Your task to perform on an android device: add a label to a message in the gmail app Image 0: 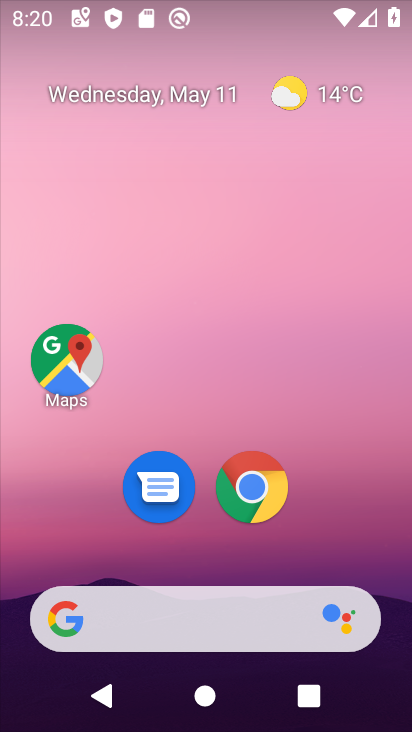
Step 0: press home button
Your task to perform on an android device: add a label to a message in the gmail app Image 1: 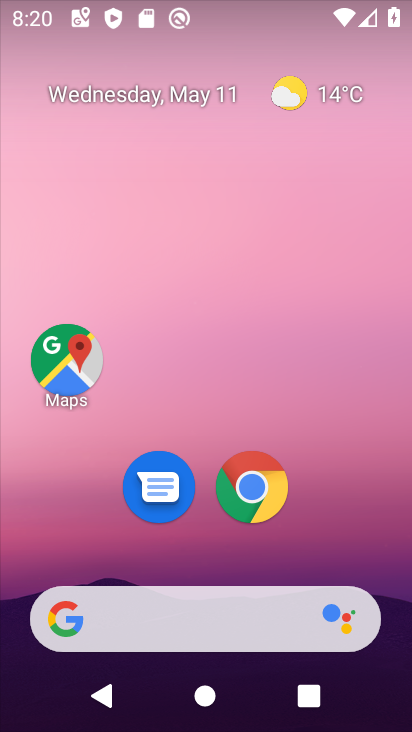
Step 1: drag from (176, 586) to (200, 218)
Your task to perform on an android device: add a label to a message in the gmail app Image 2: 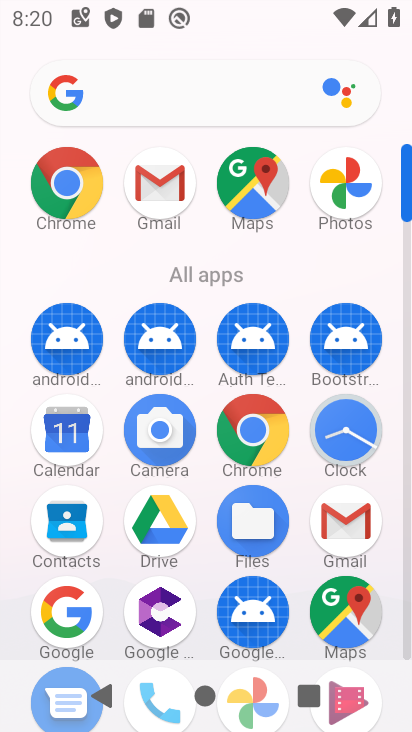
Step 2: click (346, 519)
Your task to perform on an android device: add a label to a message in the gmail app Image 3: 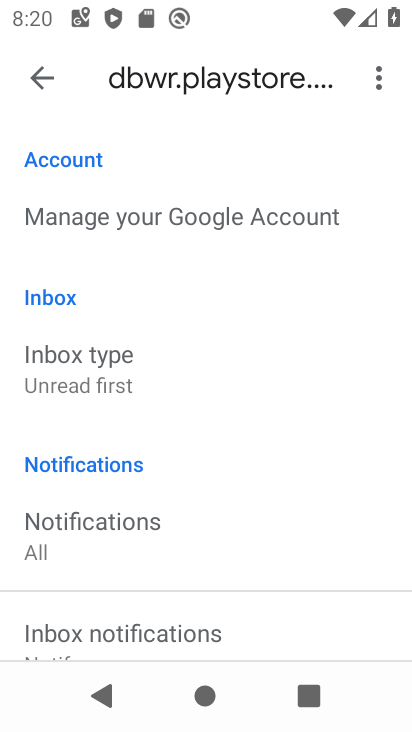
Step 3: drag from (160, 644) to (160, 304)
Your task to perform on an android device: add a label to a message in the gmail app Image 4: 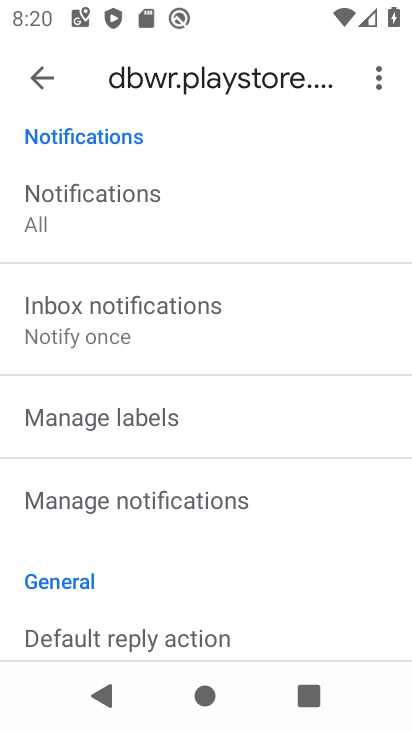
Step 4: click (30, 72)
Your task to perform on an android device: add a label to a message in the gmail app Image 5: 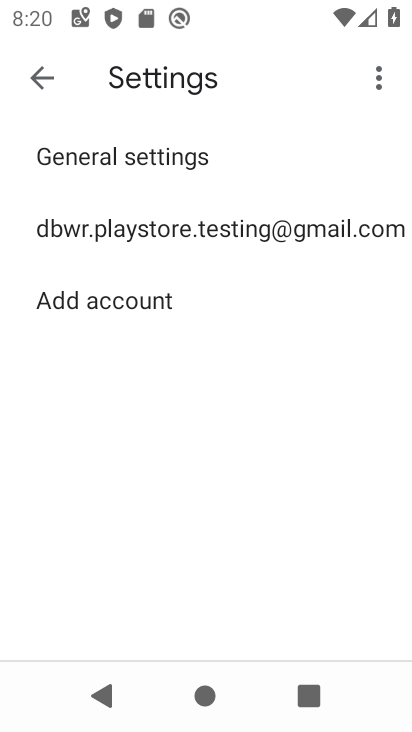
Step 5: click (103, 225)
Your task to perform on an android device: add a label to a message in the gmail app Image 6: 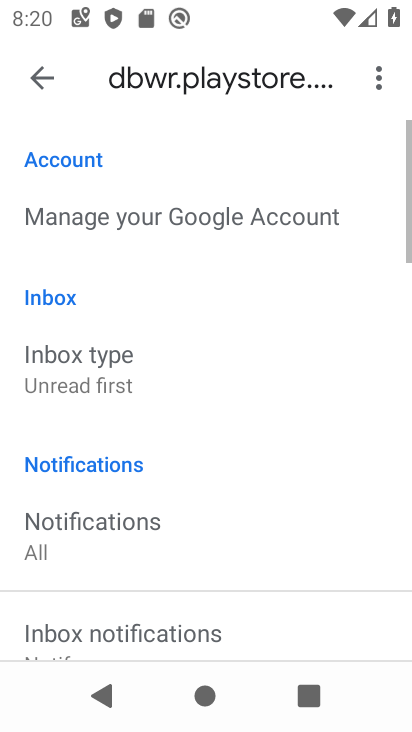
Step 6: click (35, 83)
Your task to perform on an android device: add a label to a message in the gmail app Image 7: 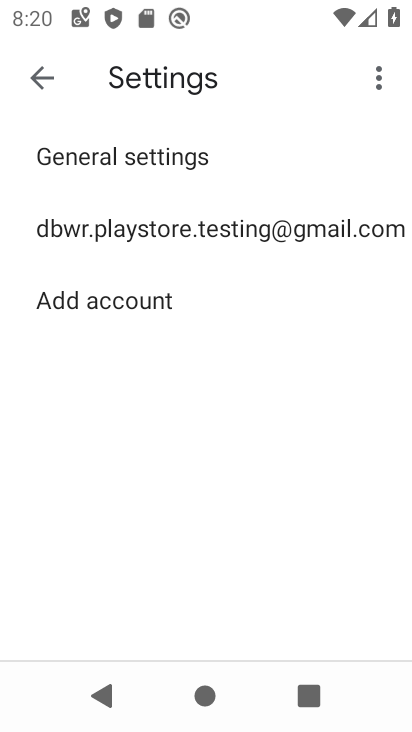
Step 7: click (35, 83)
Your task to perform on an android device: add a label to a message in the gmail app Image 8: 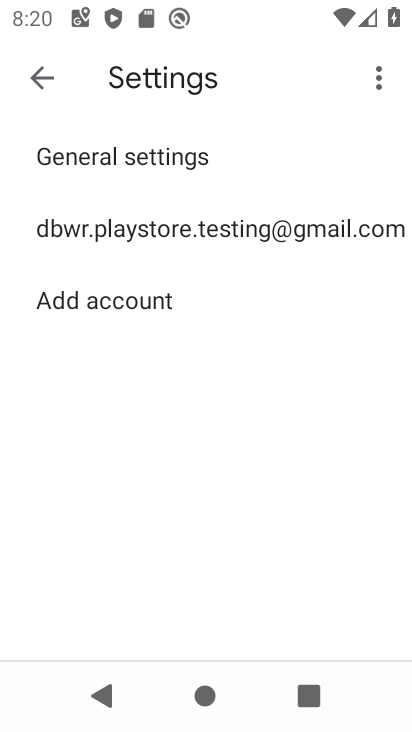
Step 8: click (35, 81)
Your task to perform on an android device: add a label to a message in the gmail app Image 9: 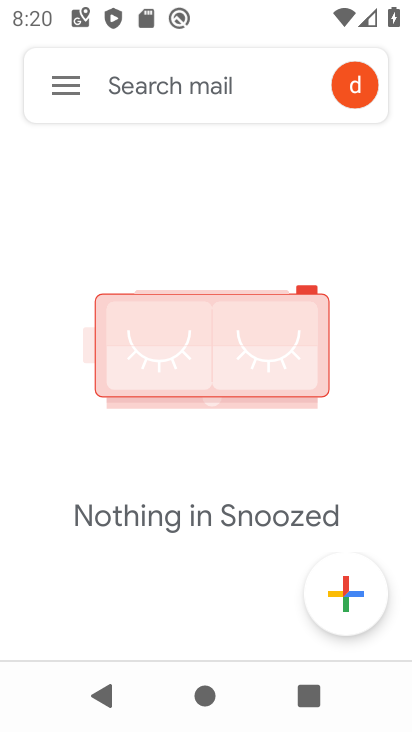
Step 9: click (70, 91)
Your task to perform on an android device: add a label to a message in the gmail app Image 10: 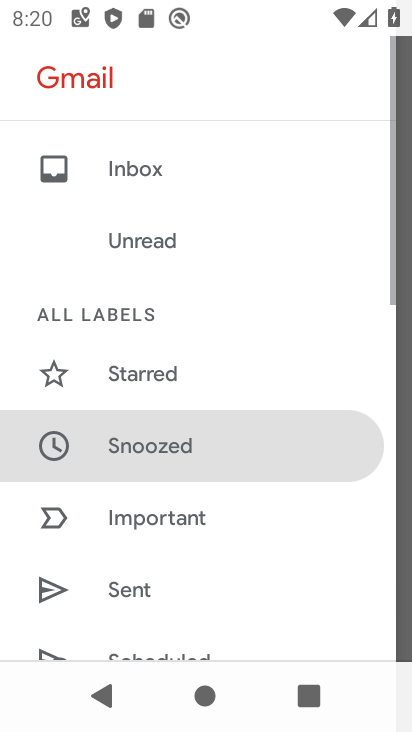
Step 10: click (116, 156)
Your task to perform on an android device: add a label to a message in the gmail app Image 11: 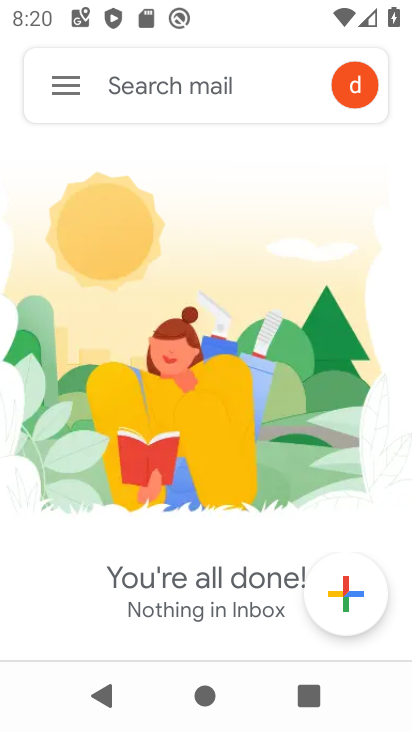
Step 11: task complete